Your task to perform on an android device: Open the web browser Image 0: 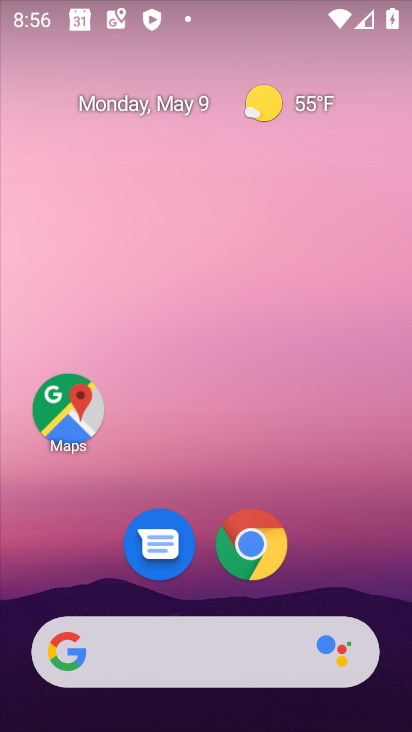
Step 0: drag from (179, 579) to (204, 100)
Your task to perform on an android device: Open the web browser Image 1: 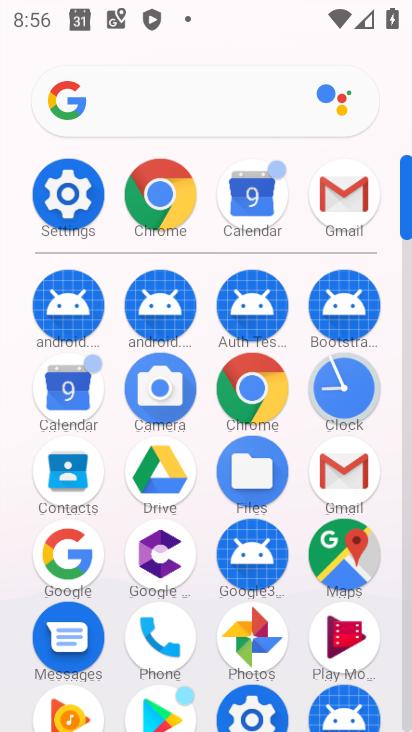
Step 1: click (157, 205)
Your task to perform on an android device: Open the web browser Image 2: 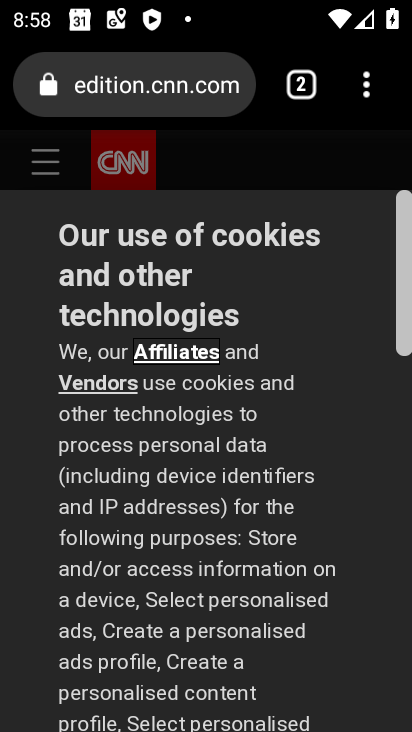
Step 2: task complete